Your task to perform on an android device: check out phone information Image 0: 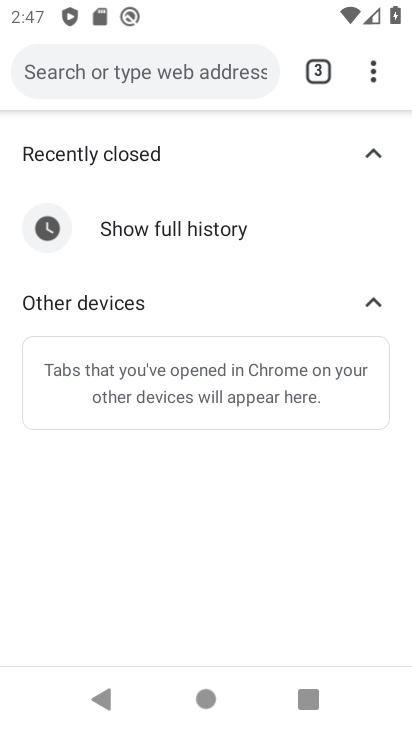
Step 0: press home button
Your task to perform on an android device: check out phone information Image 1: 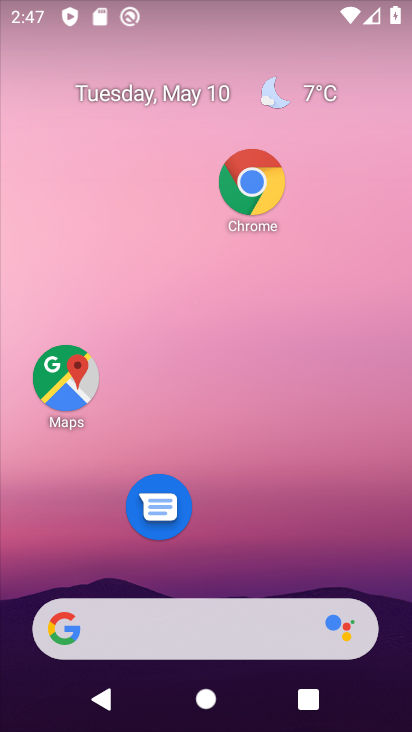
Step 1: drag from (328, 520) to (331, 166)
Your task to perform on an android device: check out phone information Image 2: 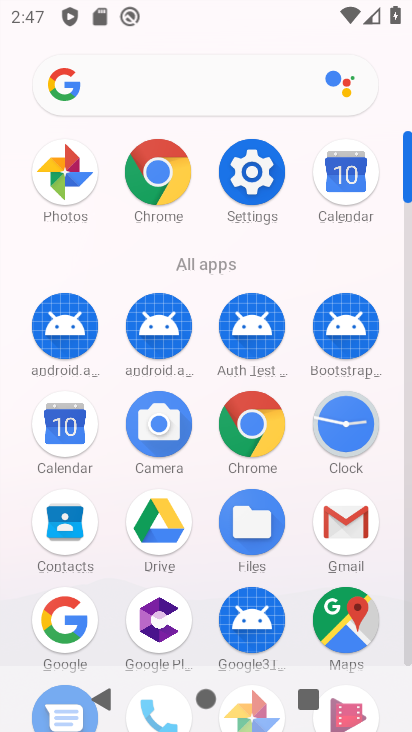
Step 2: click (239, 190)
Your task to perform on an android device: check out phone information Image 3: 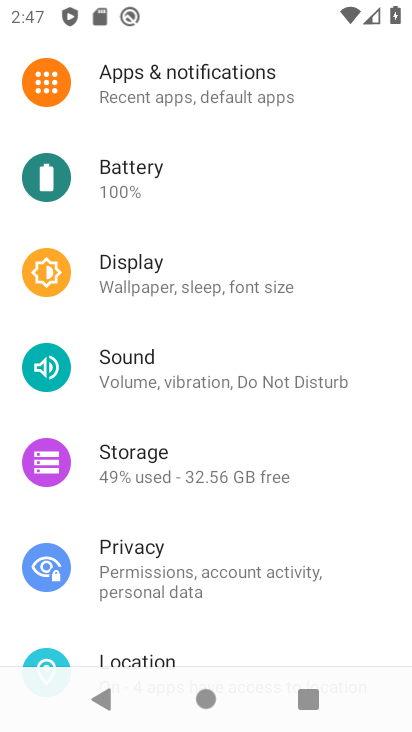
Step 3: drag from (210, 529) to (174, 233)
Your task to perform on an android device: check out phone information Image 4: 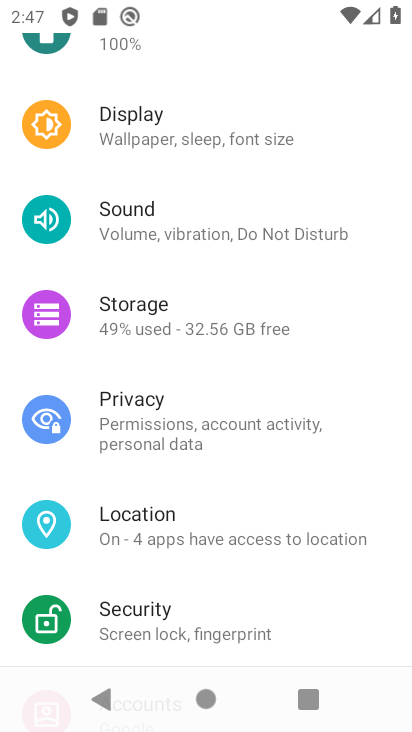
Step 4: drag from (280, 630) to (290, 161)
Your task to perform on an android device: check out phone information Image 5: 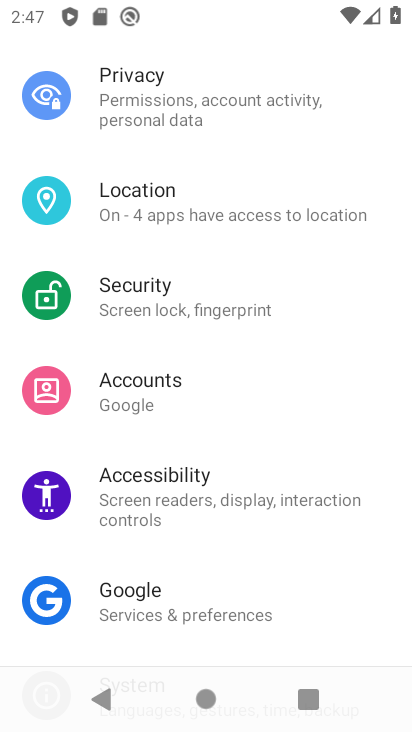
Step 5: drag from (255, 575) to (268, 240)
Your task to perform on an android device: check out phone information Image 6: 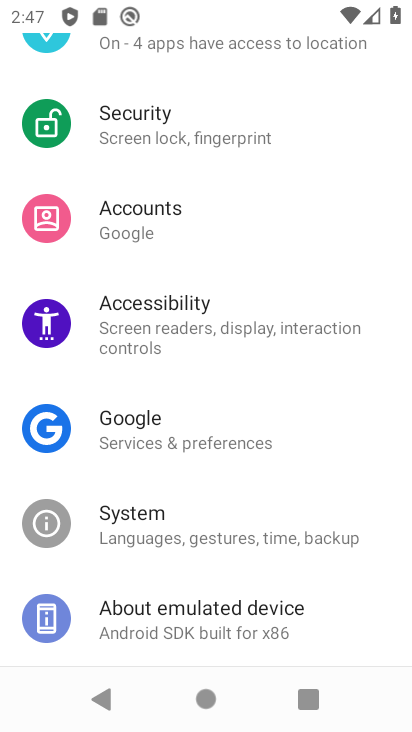
Step 6: click (263, 615)
Your task to perform on an android device: check out phone information Image 7: 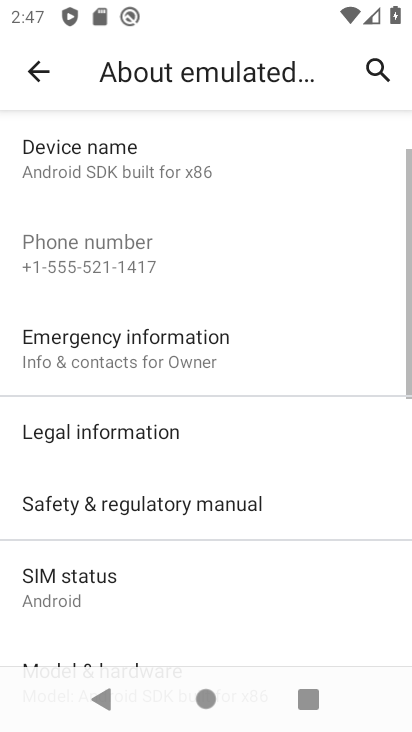
Step 7: task complete